Your task to perform on an android device: add a label to a message in the gmail app Image 0: 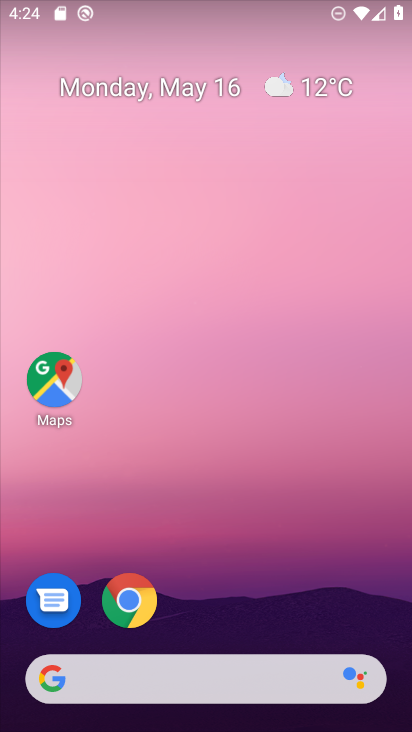
Step 0: drag from (283, 642) to (342, 98)
Your task to perform on an android device: add a label to a message in the gmail app Image 1: 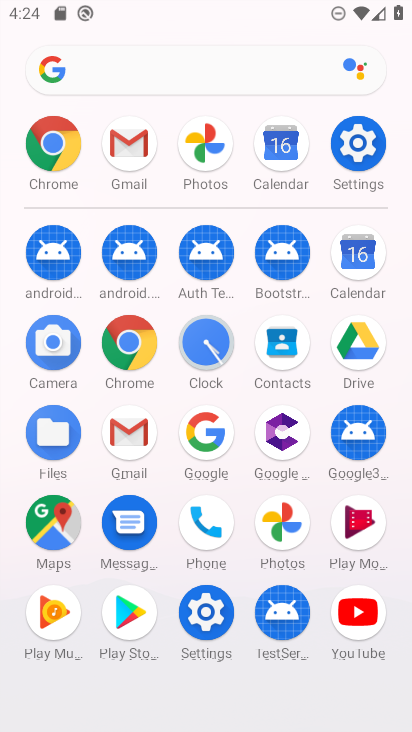
Step 1: click (144, 141)
Your task to perform on an android device: add a label to a message in the gmail app Image 2: 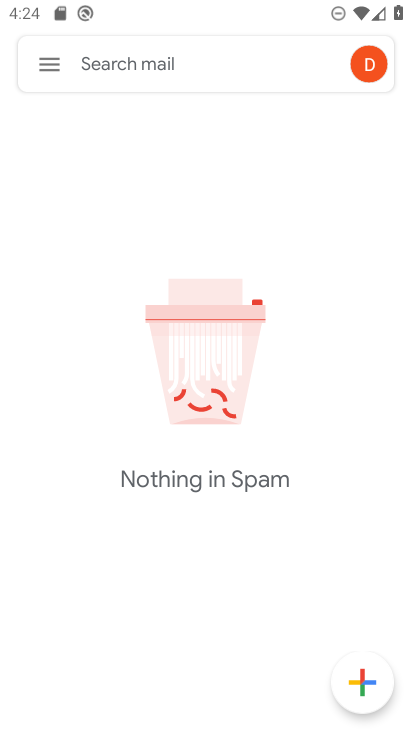
Step 2: click (37, 73)
Your task to perform on an android device: add a label to a message in the gmail app Image 3: 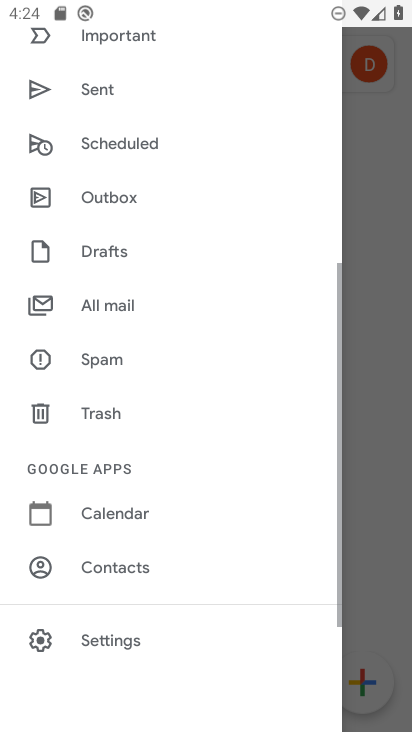
Step 3: drag from (185, 601) to (291, 189)
Your task to perform on an android device: add a label to a message in the gmail app Image 4: 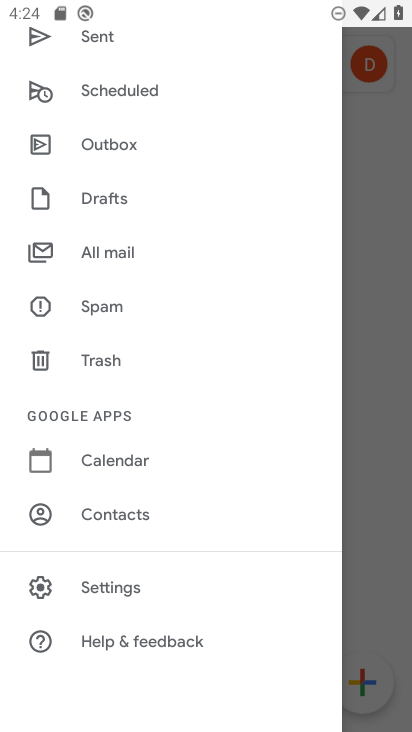
Step 4: drag from (185, 159) to (111, 710)
Your task to perform on an android device: add a label to a message in the gmail app Image 5: 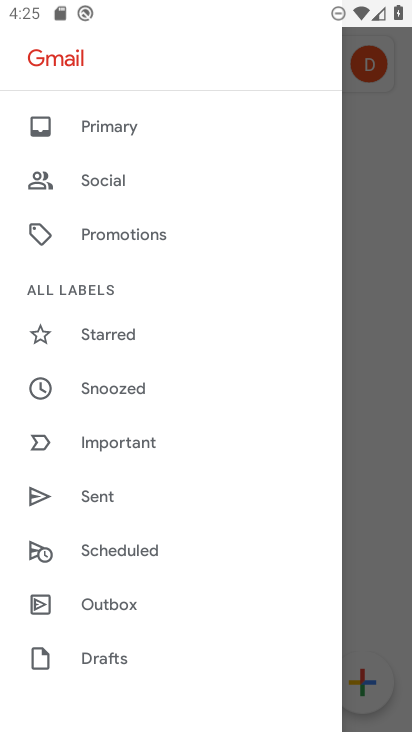
Step 5: drag from (210, 203) to (131, 581)
Your task to perform on an android device: add a label to a message in the gmail app Image 6: 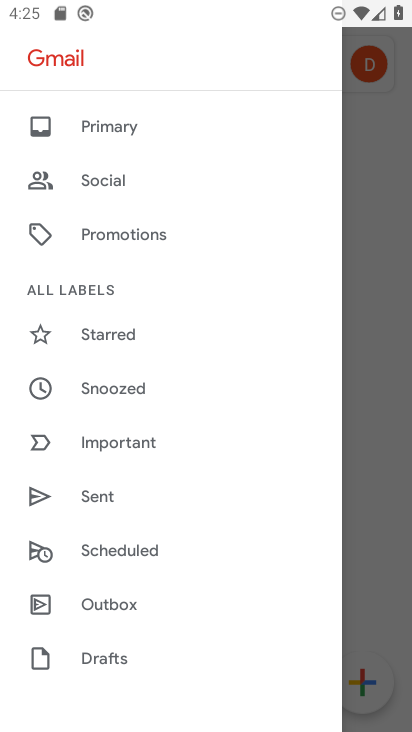
Step 6: click (216, 144)
Your task to perform on an android device: add a label to a message in the gmail app Image 7: 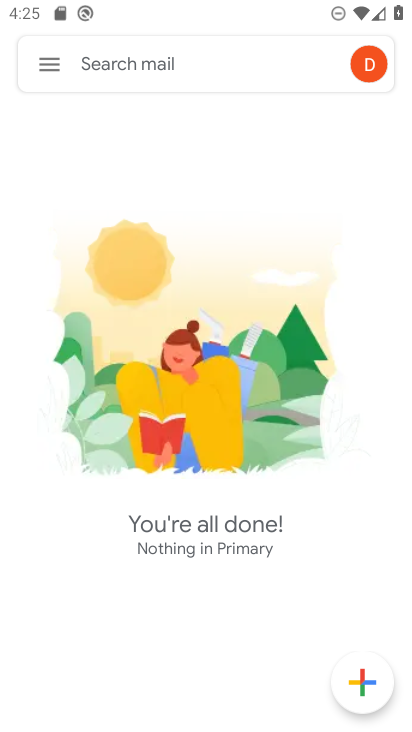
Step 7: click (56, 73)
Your task to perform on an android device: add a label to a message in the gmail app Image 8: 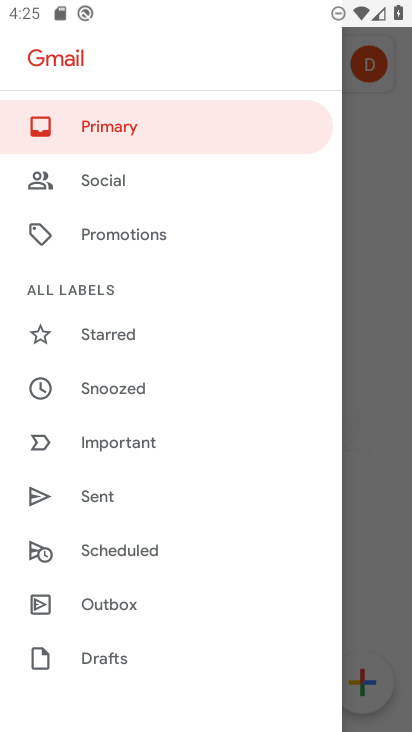
Step 8: drag from (112, 592) to (196, 219)
Your task to perform on an android device: add a label to a message in the gmail app Image 9: 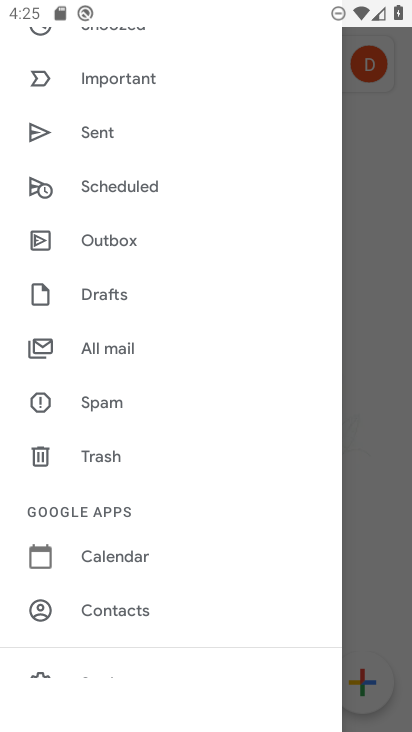
Step 9: click (104, 350)
Your task to perform on an android device: add a label to a message in the gmail app Image 10: 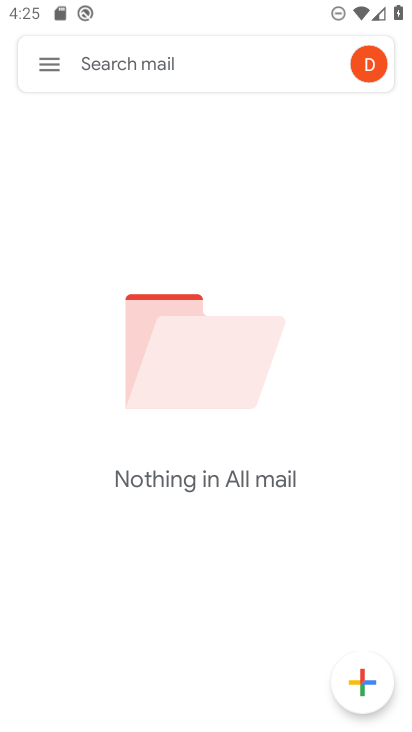
Step 10: task complete